Your task to perform on an android device: uninstall "Yahoo Mail" Image 0: 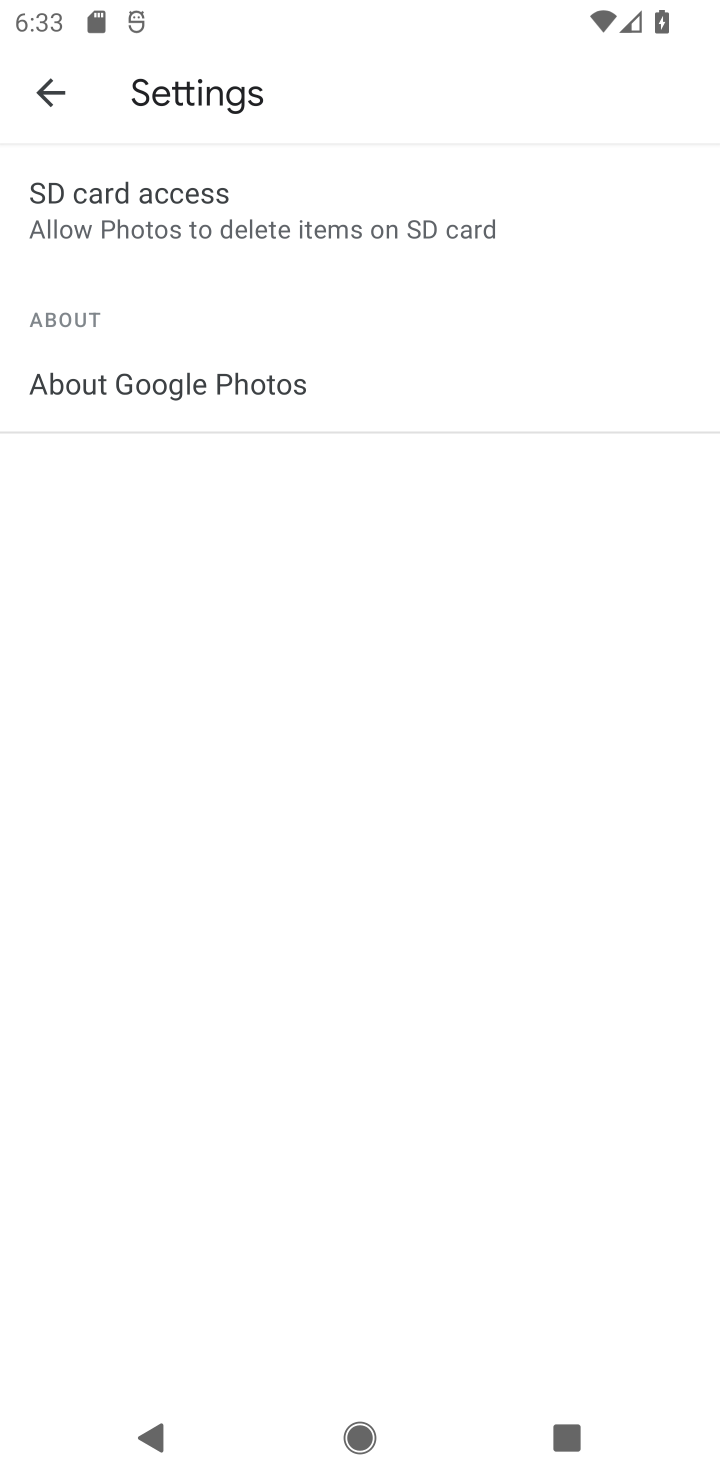
Step 0: press home button
Your task to perform on an android device: uninstall "Yahoo Mail" Image 1: 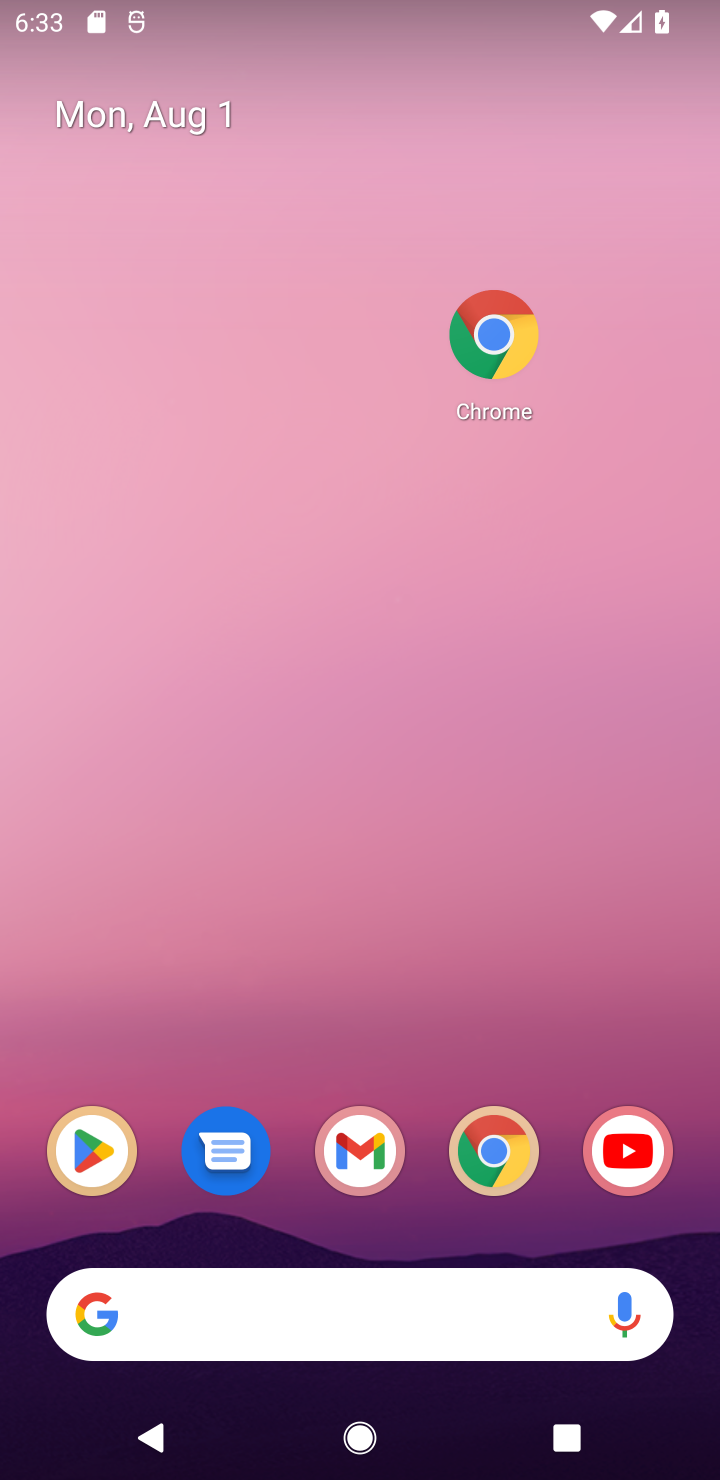
Step 1: click (89, 1159)
Your task to perform on an android device: uninstall "Yahoo Mail" Image 2: 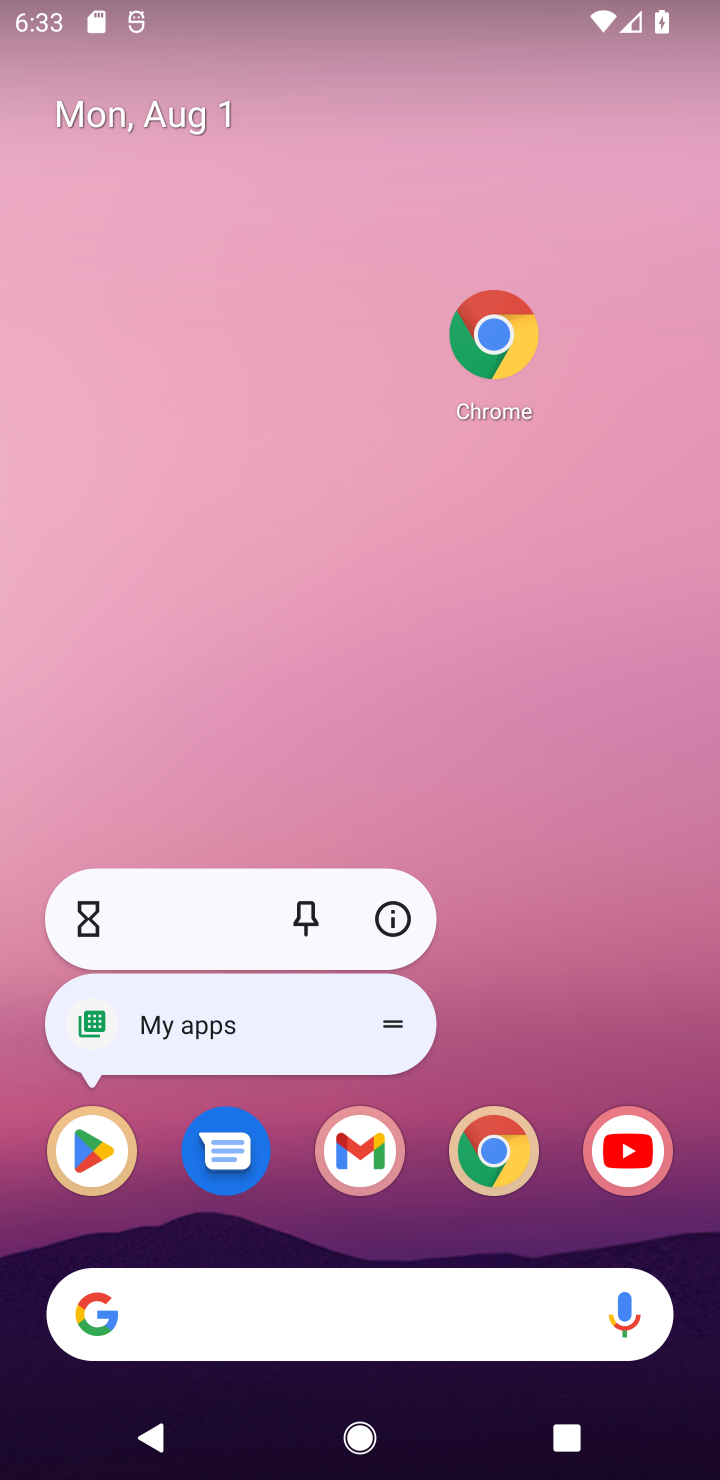
Step 2: click (89, 1159)
Your task to perform on an android device: uninstall "Yahoo Mail" Image 3: 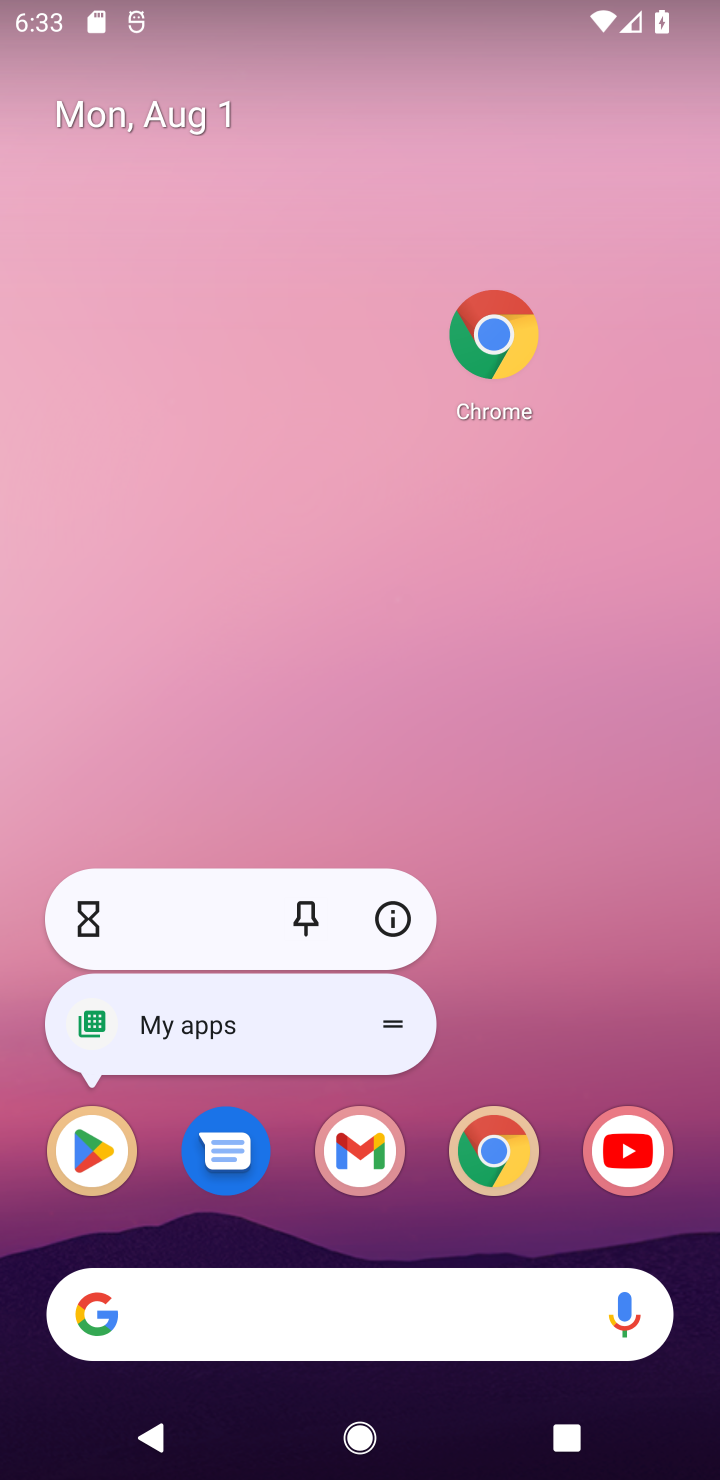
Step 3: click (89, 1159)
Your task to perform on an android device: uninstall "Yahoo Mail" Image 4: 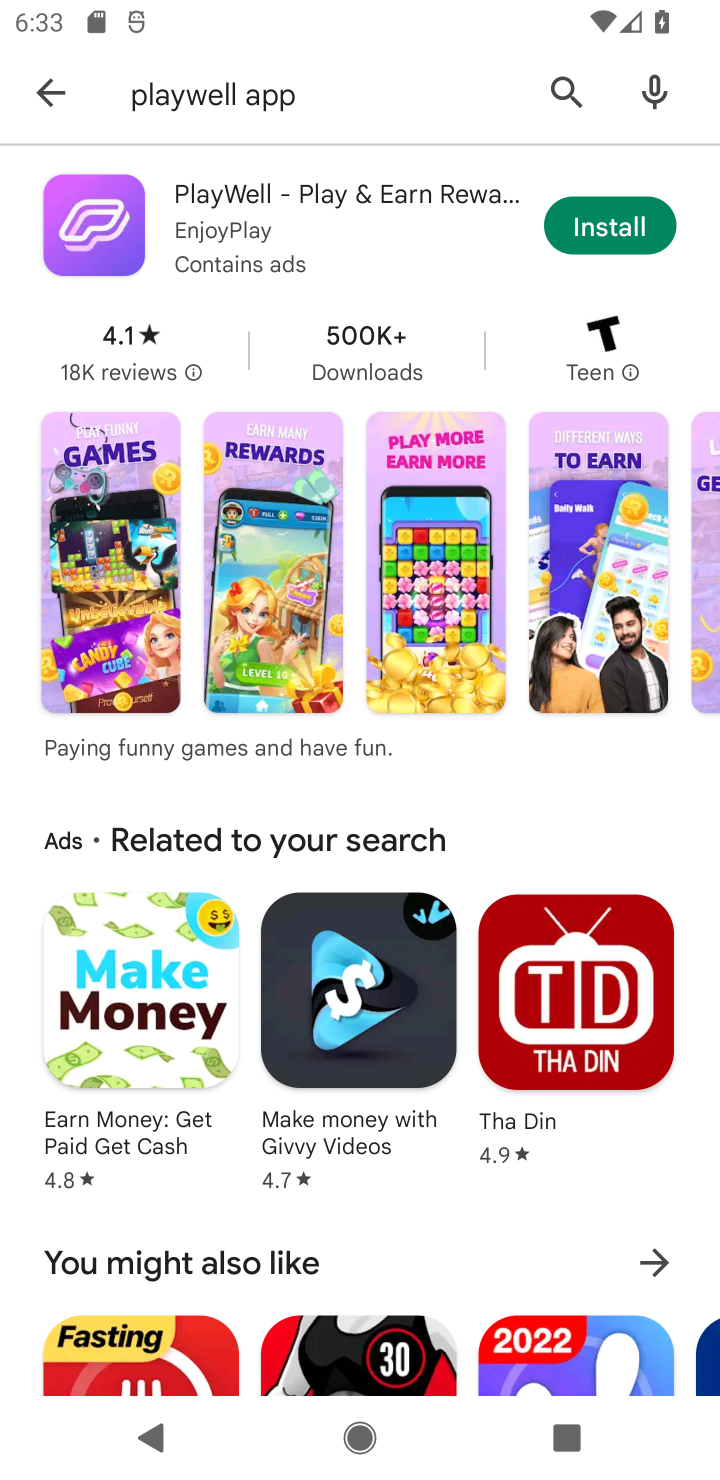
Step 4: click (547, 82)
Your task to perform on an android device: uninstall "Yahoo Mail" Image 5: 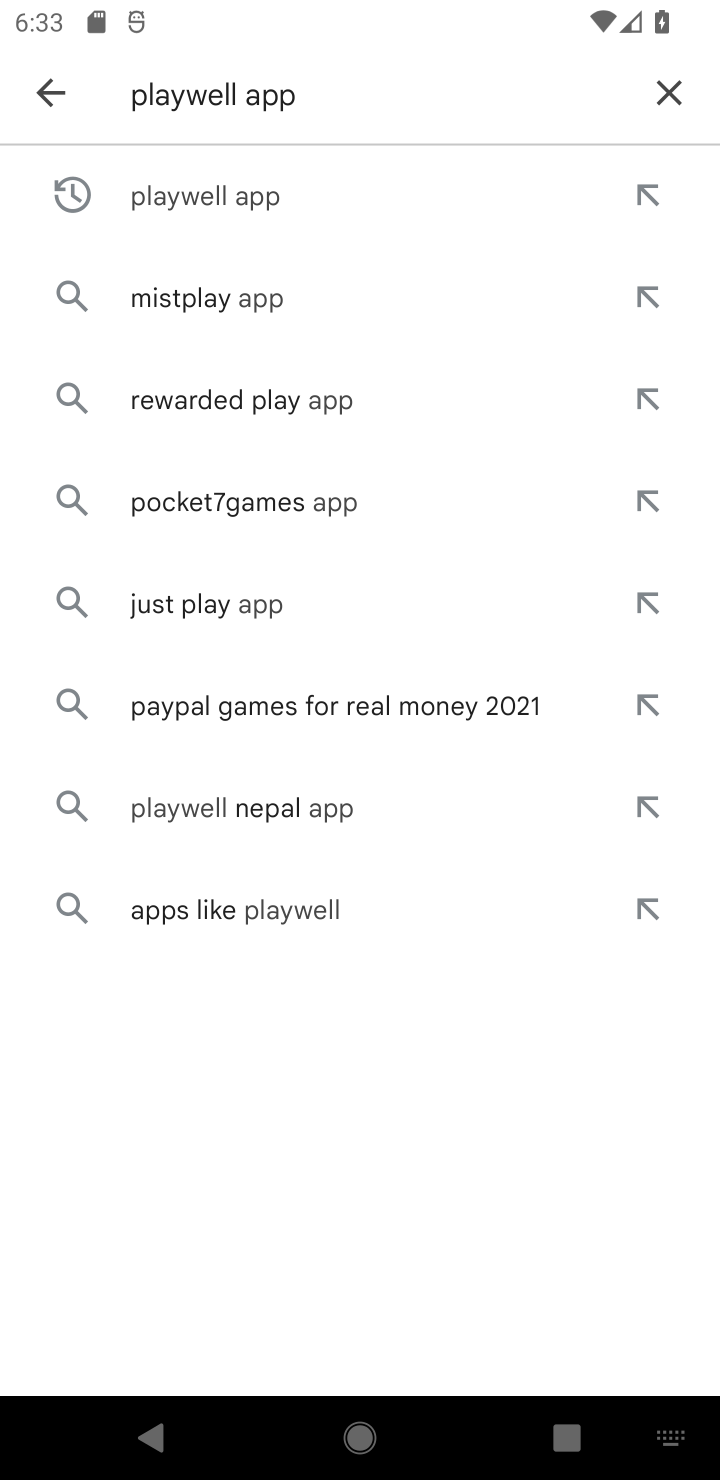
Step 5: click (655, 87)
Your task to perform on an android device: uninstall "Yahoo Mail" Image 6: 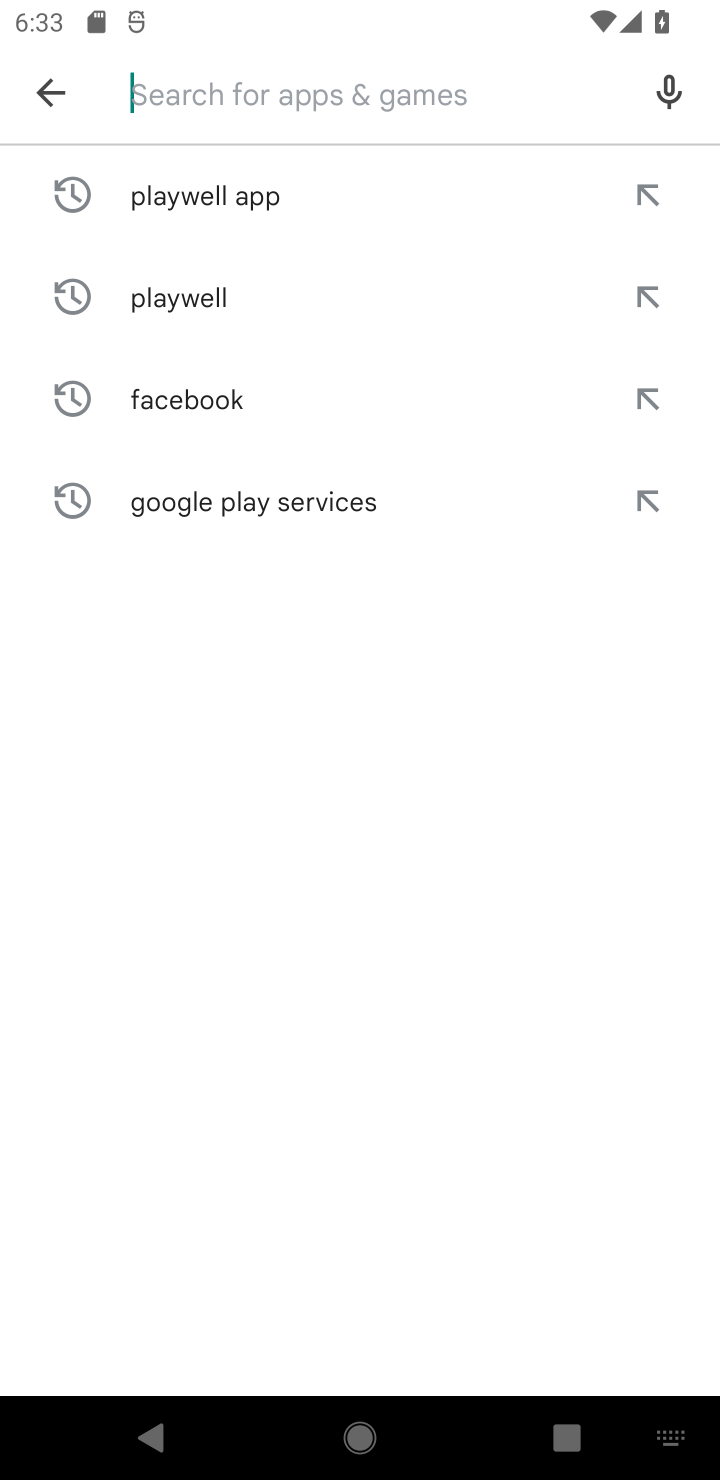
Step 6: click (282, 95)
Your task to perform on an android device: uninstall "Yahoo Mail" Image 7: 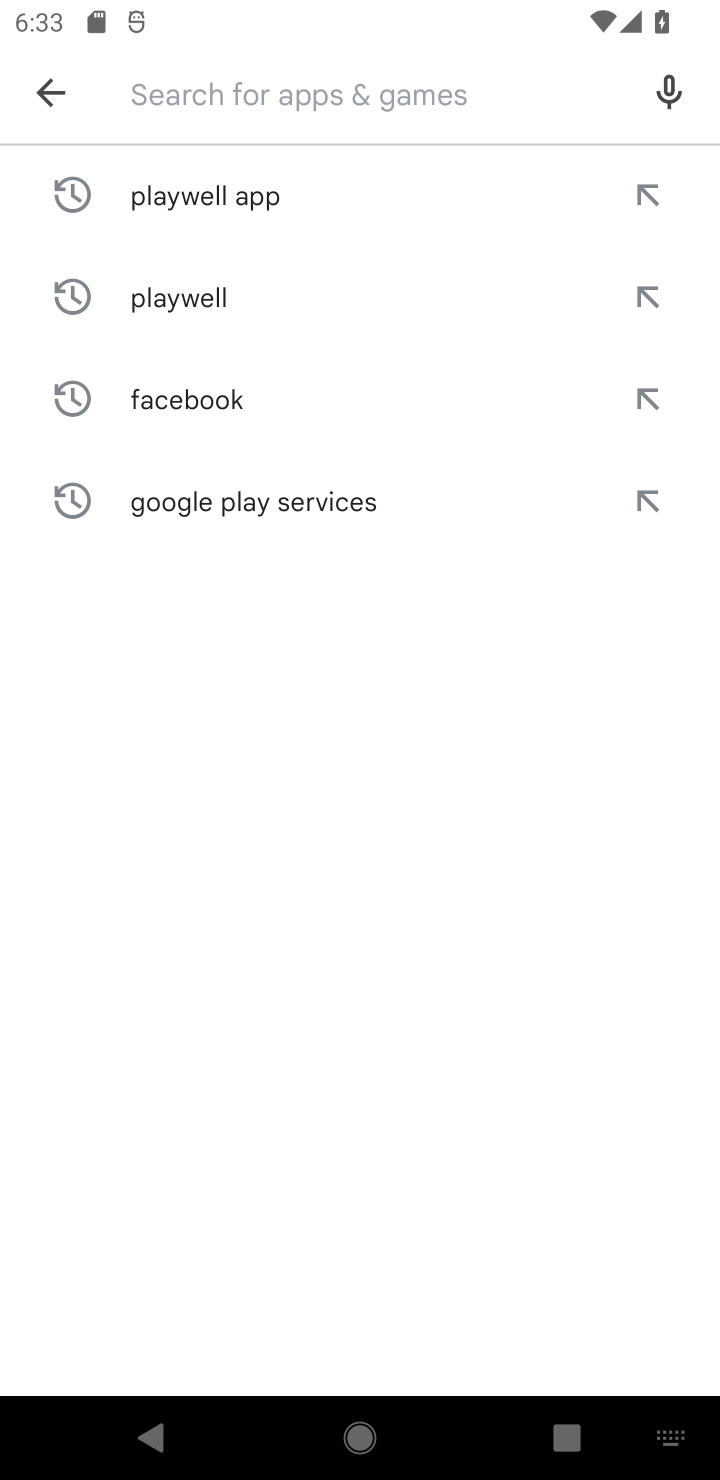
Step 7: type "Yahoo Mail"
Your task to perform on an android device: uninstall "Yahoo Mail" Image 8: 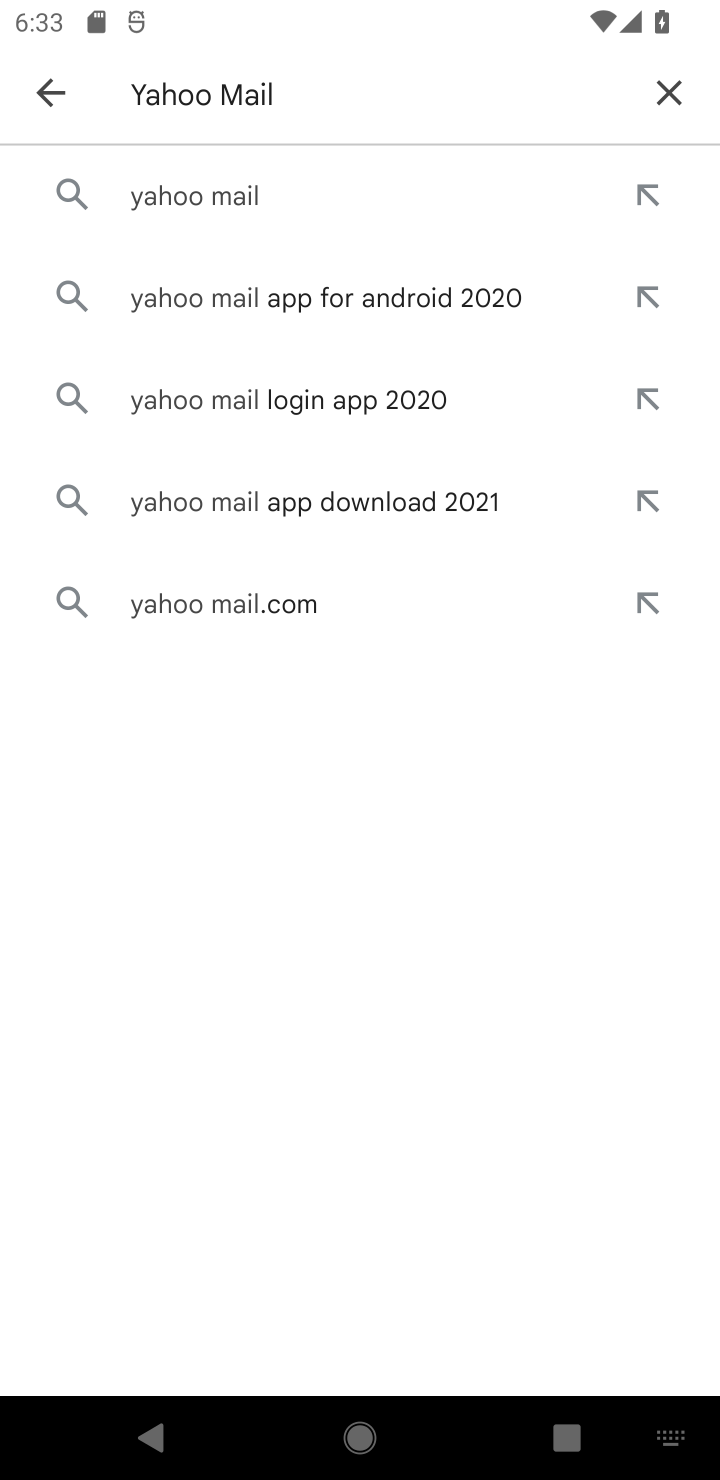
Step 8: click (202, 204)
Your task to perform on an android device: uninstall "Yahoo Mail" Image 9: 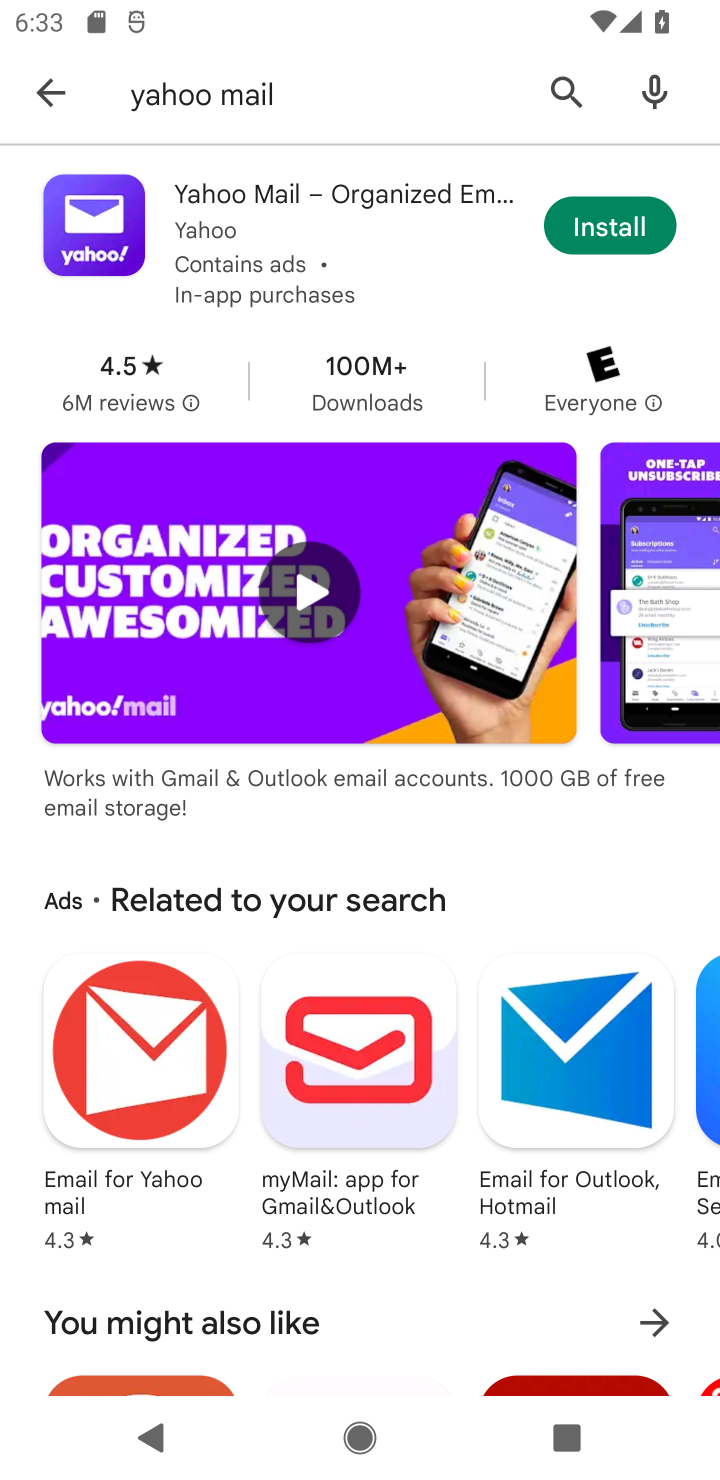
Step 9: task complete